Your task to perform on an android device: Go to calendar. Show me events next week Image 0: 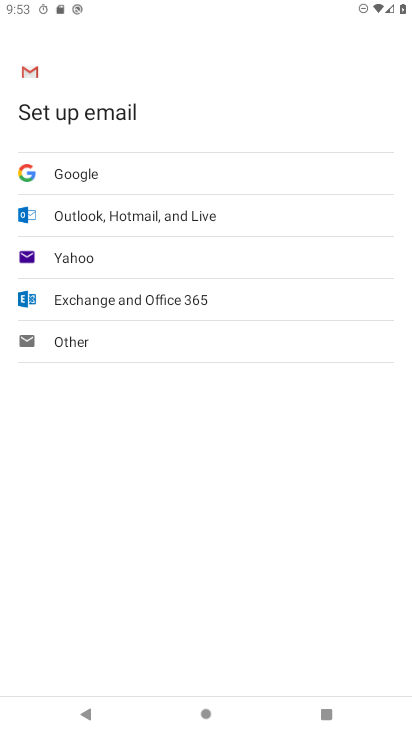
Step 0: press home button
Your task to perform on an android device: Go to calendar. Show me events next week Image 1: 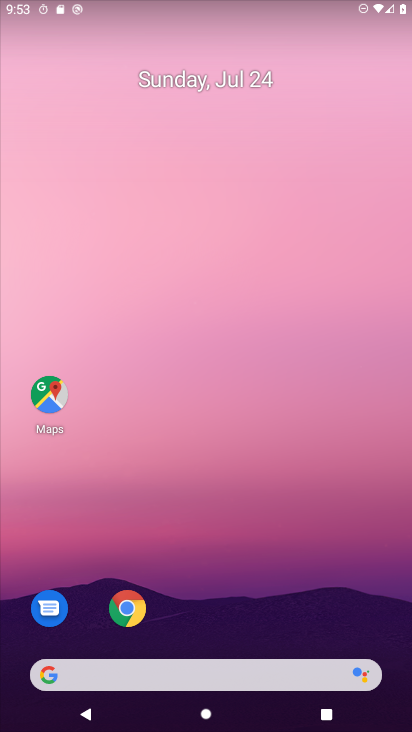
Step 1: drag from (176, 637) to (231, 170)
Your task to perform on an android device: Go to calendar. Show me events next week Image 2: 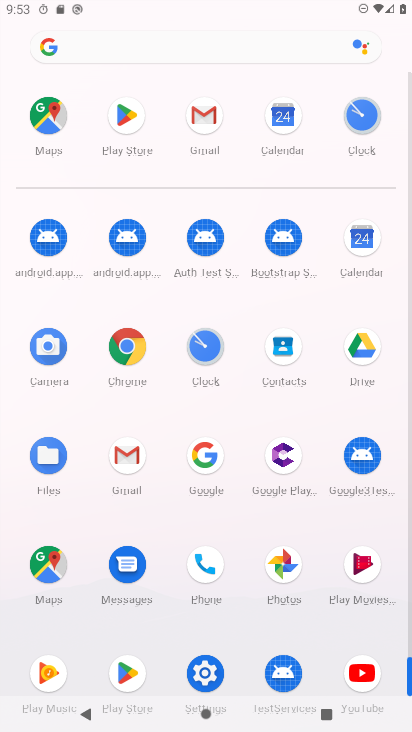
Step 2: click (362, 234)
Your task to perform on an android device: Go to calendar. Show me events next week Image 3: 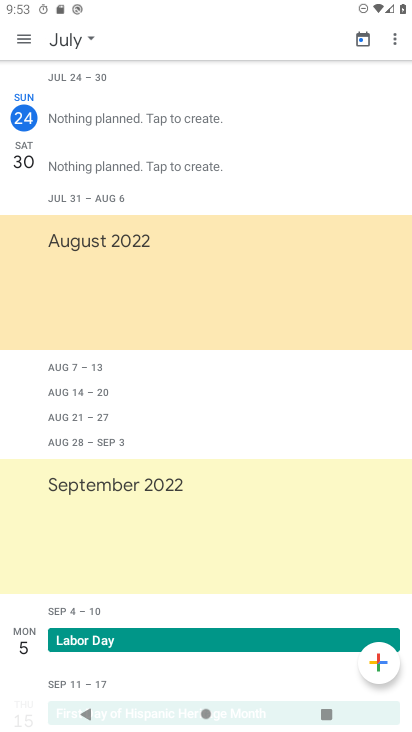
Step 3: click (78, 50)
Your task to perform on an android device: Go to calendar. Show me events next week Image 4: 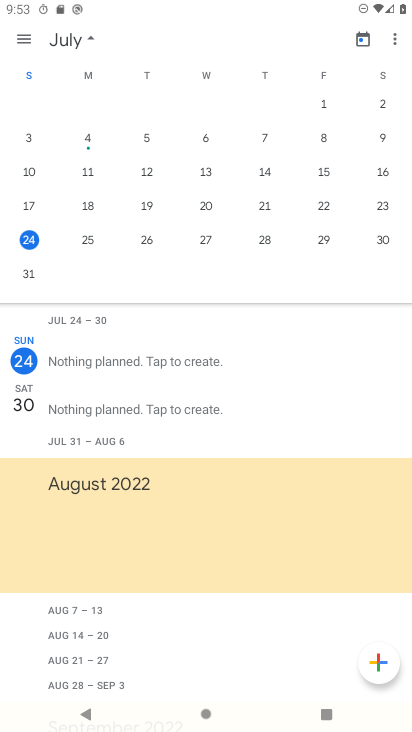
Step 4: click (30, 271)
Your task to perform on an android device: Go to calendar. Show me events next week Image 5: 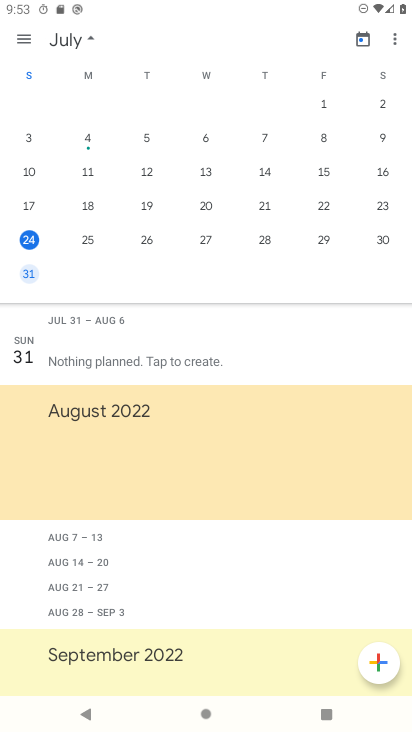
Step 5: task complete